Your task to perform on an android device: What's the weather going to be this weekend? Image 0: 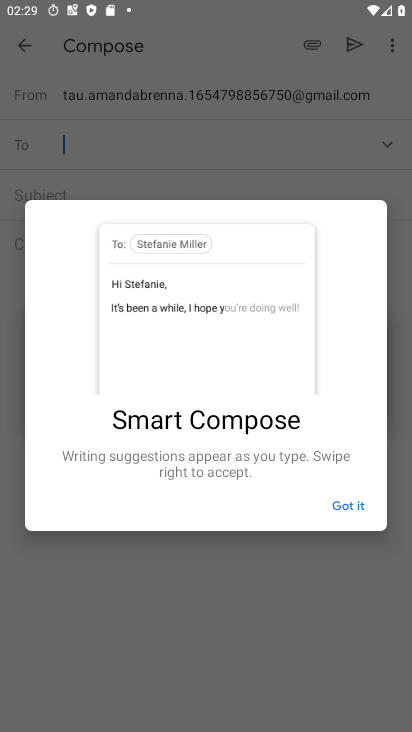
Step 0: press home button
Your task to perform on an android device: What's the weather going to be this weekend? Image 1: 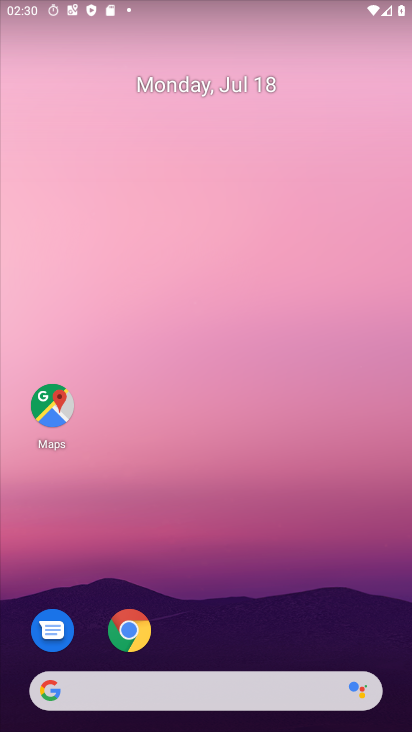
Step 1: click (258, 693)
Your task to perform on an android device: What's the weather going to be this weekend? Image 2: 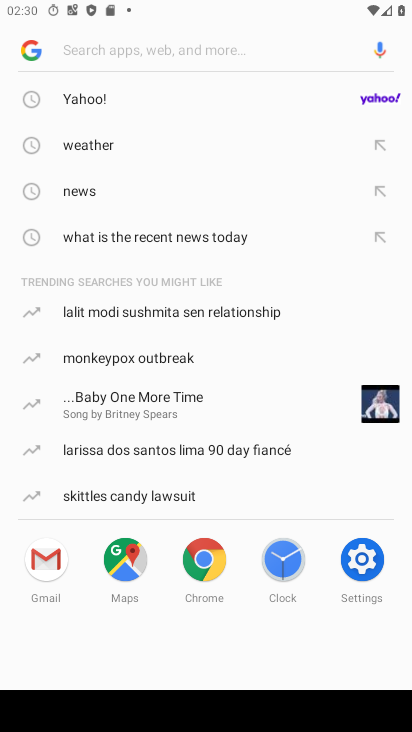
Step 2: click (105, 150)
Your task to perform on an android device: What's the weather going to be this weekend? Image 3: 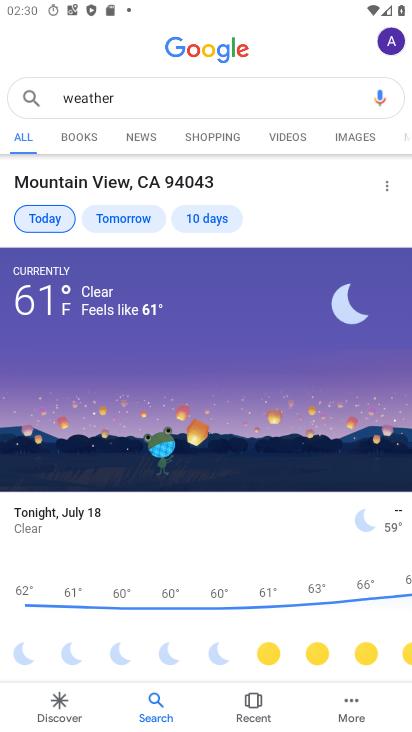
Step 3: click (175, 211)
Your task to perform on an android device: What's the weather going to be this weekend? Image 4: 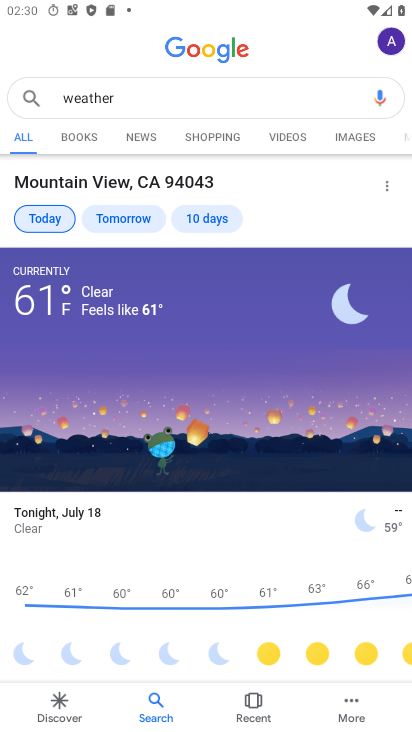
Step 4: click (198, 230)
Your task to perform on an android device: What's the weather going to be this weekend? Image 5: 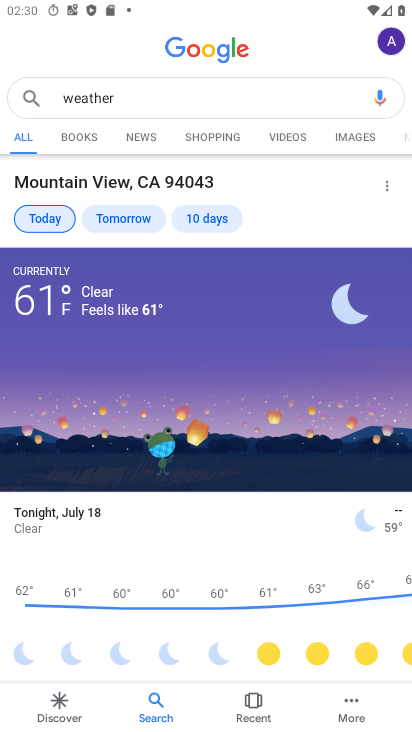
Step 5: click (198, 230)
Your task to perform on an android device: What's the weather going to be this weekend? Image 6: 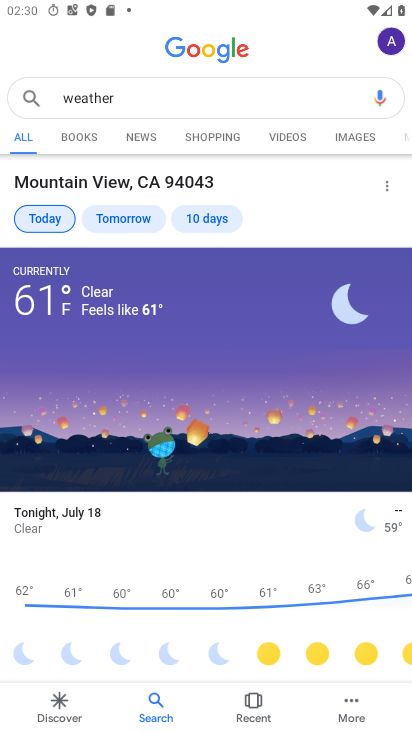
Step 6: click (204, 216)
Your task to perform on an android device: What's the weather going to be this weekend? Image 7: 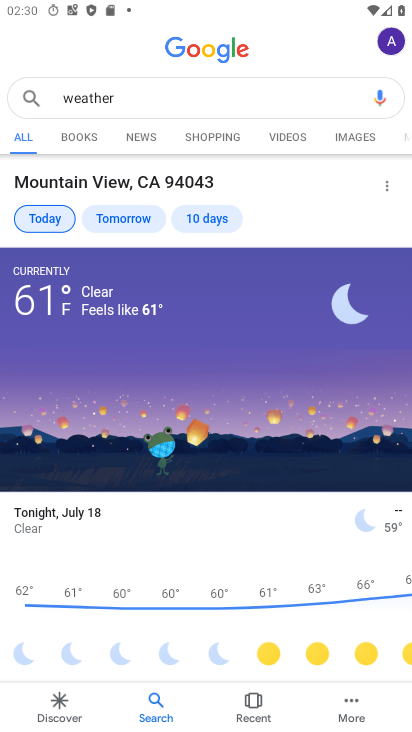
Step 7: click (204, 231)
Your task to perform on an android device: What's the weather going to be this weekend? Image 8: 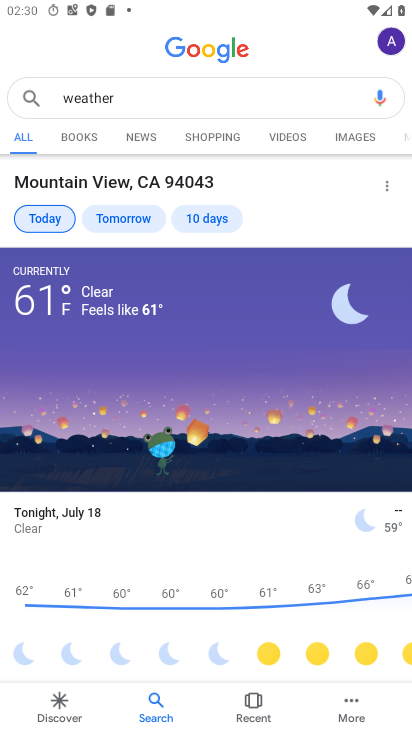
Step 8: click (204, 231)
Your task to perform on an android device: What's the weather going to be this weekend? Image 9: 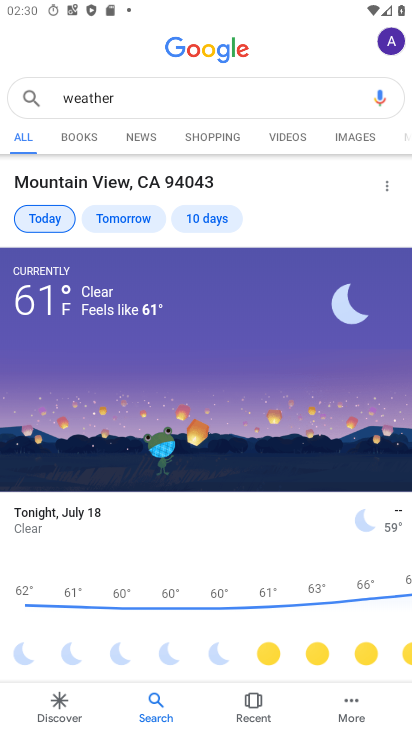
Step 9: click (204, 231)
Your task to perform on an android device: What's the weather going to be this weekend? Image 10: 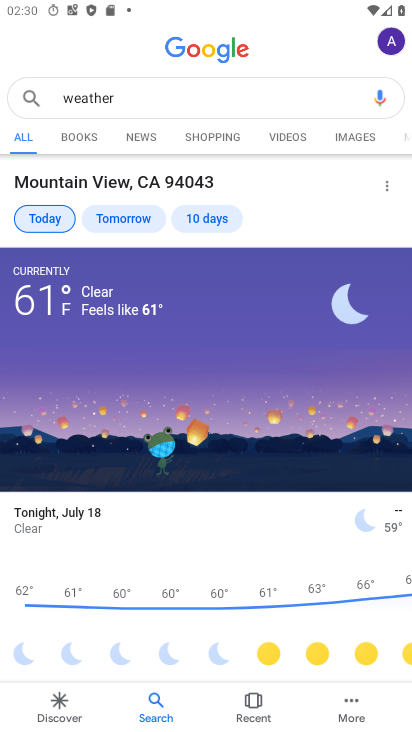
Step 10: click (204, 231)
Your task to perform on an android device: What's the weather going to be this weekend? Image 11: 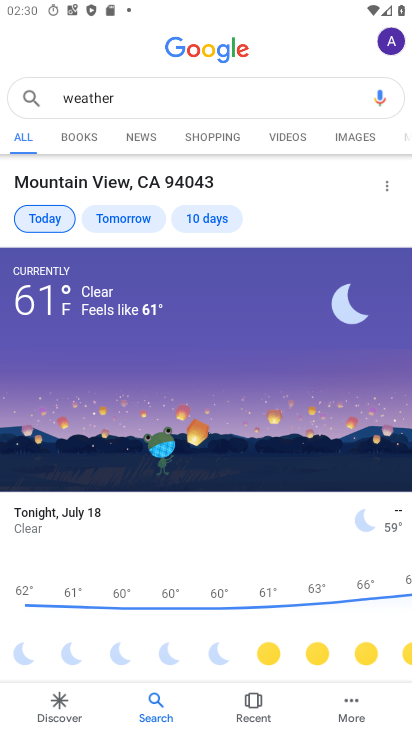
Step 11: click (204, 231)
Your task to perform on an android device: What's the weather going to be this weekend? Image 12: 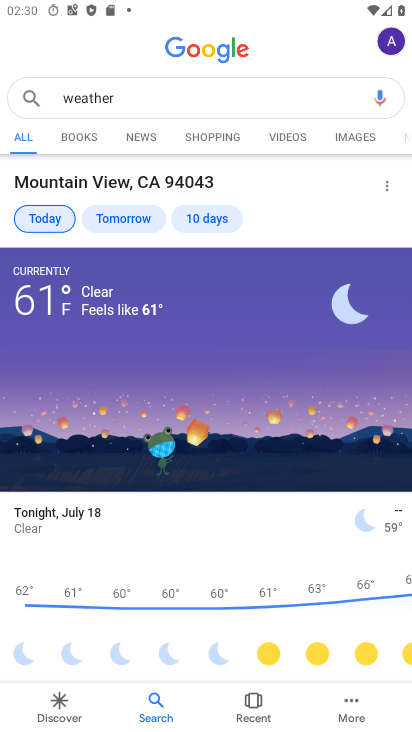
Step 12: click (204, 231)
Your task to perform on an android device: What's the weather going to be this weekend? Image 13: 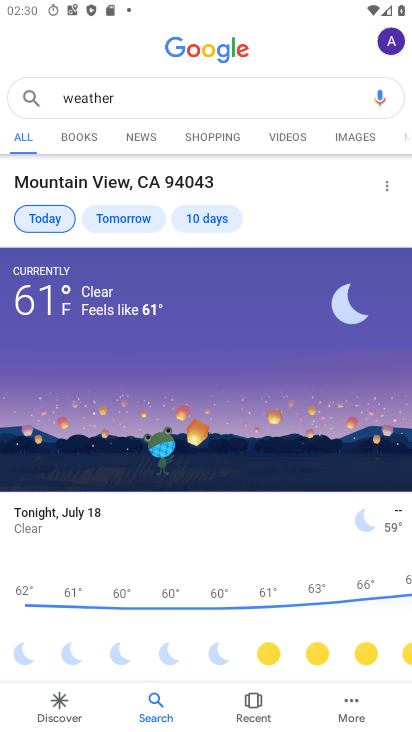
Step 13: click (204, 231)
Your task to perform on an android device: What's the weather going to be this weekend? Image 14: 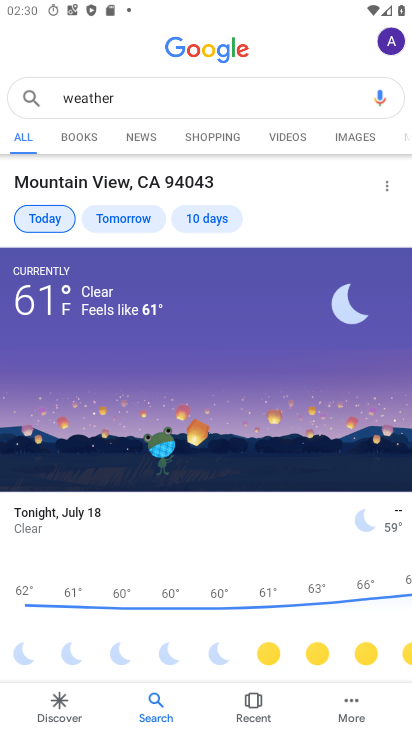
Step 14: click (204, 231)
Your task to perform on an android device: What's the weather going to be this weekend? Image 15: 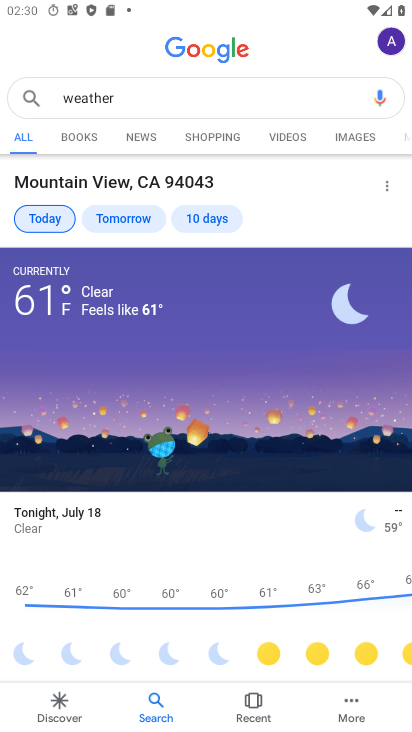
Step 15: click (193, 225)
Your task to perform on an android device: What's the weather going to be this weekend? Image 16: 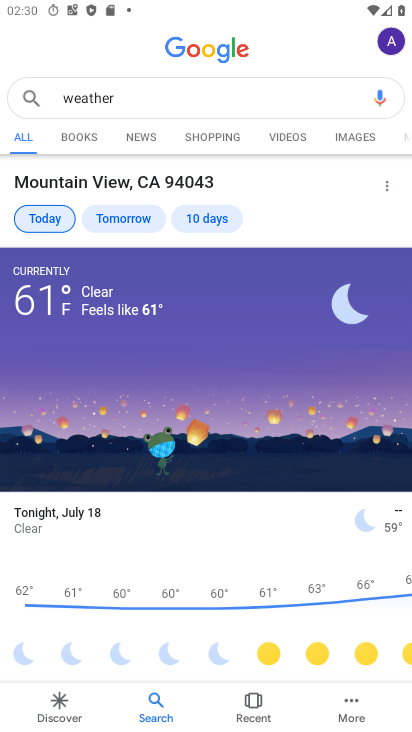
Step 16: click (193, 225)
Your task to perform on an android device: What's the weather going to be this weekend? Image 17: 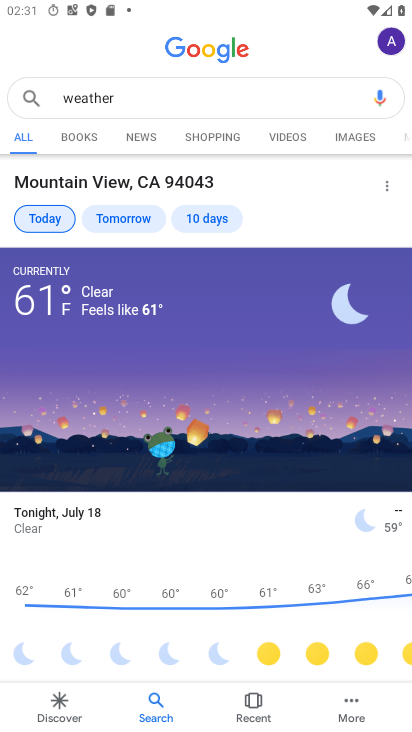
Step 17: click (193, 225)
Your task to perform on an android device: What's the weather going to be this weekend? Image 18: 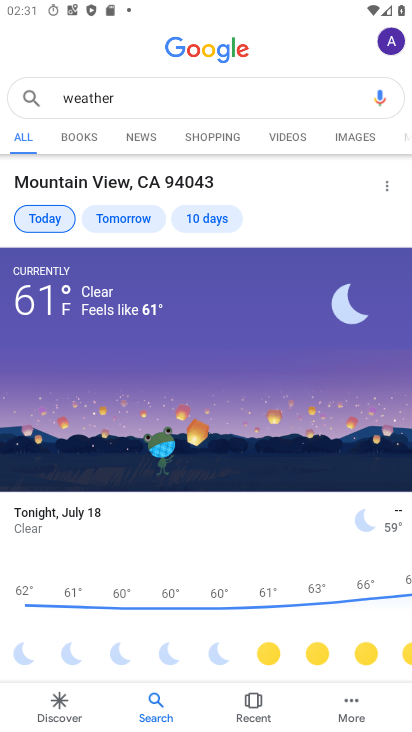
Step 18: click (193, 225)
Your task to perform on an android device: What's the weather going to be this weekend? Image 19: 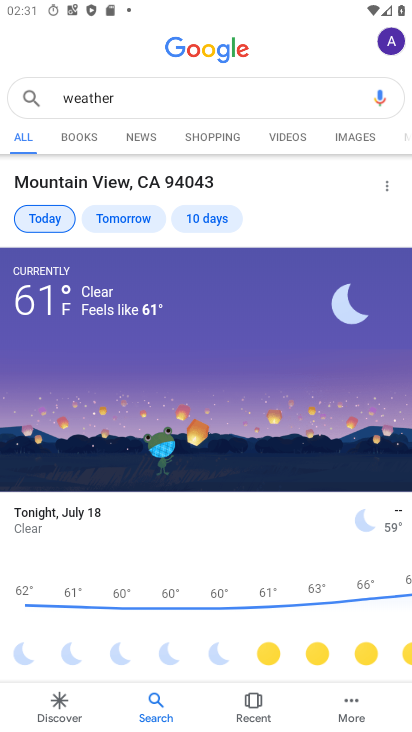
Step 19: click (193, 225)
Your task to perform on an android device: What's the weather going to be this weekend? Image 20: 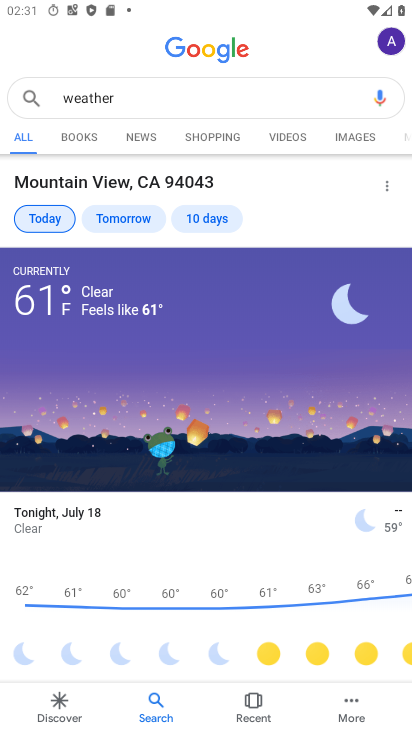
Step 20: click (193, 225)
Your task to perform on an android device: What's the weather going to be this weekend? Image 21: 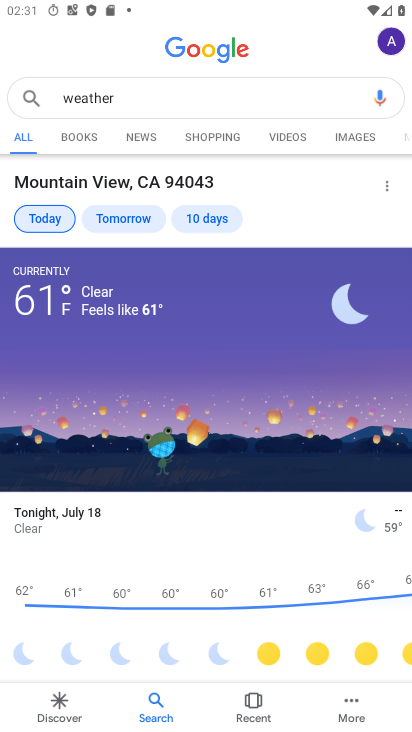
Step 21: click (193, 225)
Your task to perform on an android device: What's the weather going to be this weekend? Image 22: 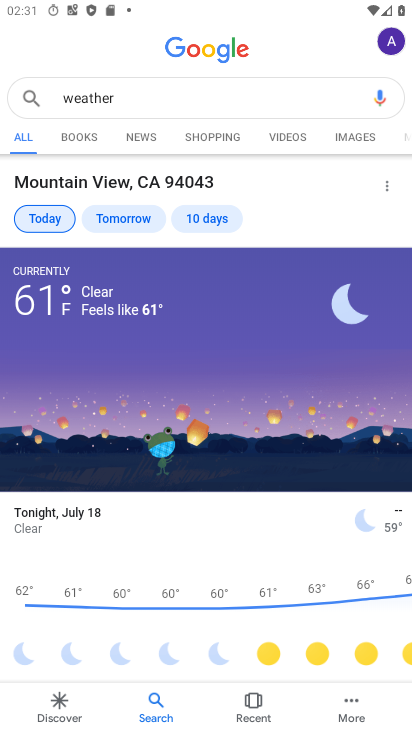
Step 22: click (193, 225)
Your task to perform on an android device: What's the weather going to be this weekend? Image 23: 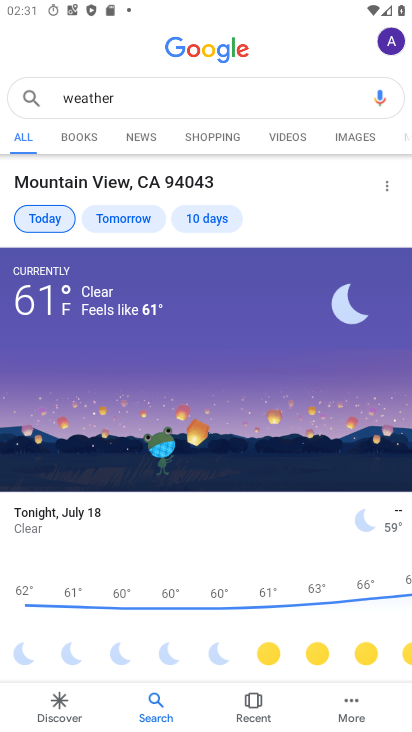
Step 23: click (193, 225)
Your task to perform on an android device: What's the weather going to be this weekend? Image 24: 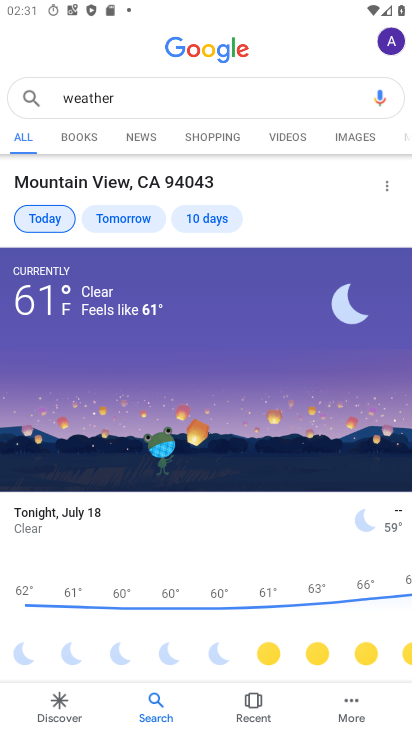
Step 24: click (193, 225)
Your task to perform on an android device: What's the weather going to be this weekend? Image 25: 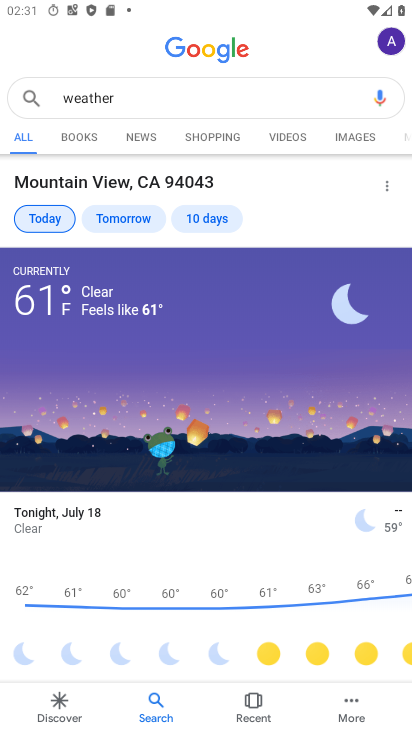
Step 25: click (193, 225)
Your task to perform on an android device: What's the weather going to be this weekend? Image 26: 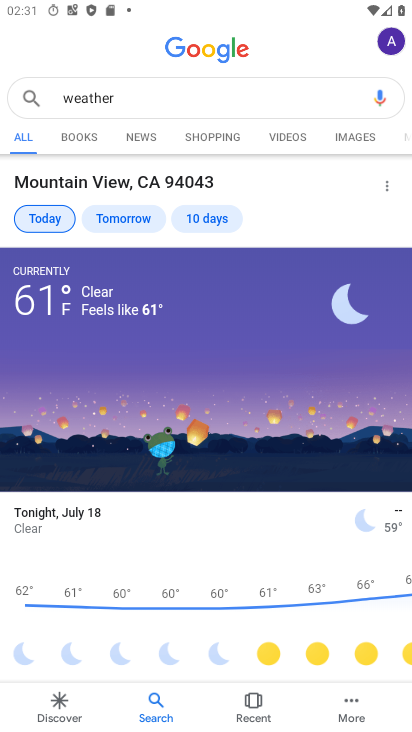
Step 26: click (193, 225)
Your task to perform on an android device: What's the weather going to be this weekend? Image 27: 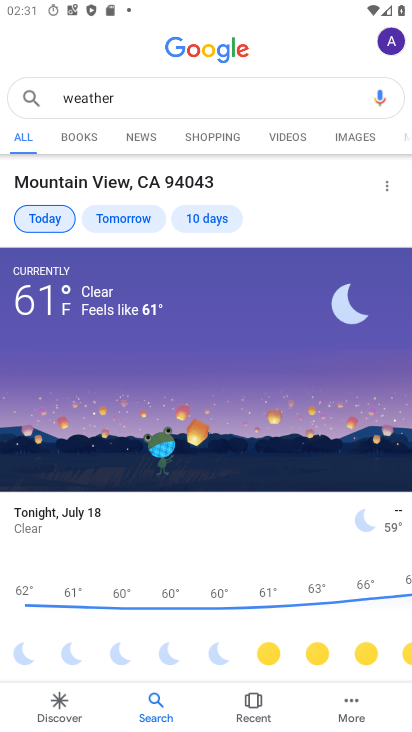
Step 27: click (193, 225)
Your task to perform on an android device: What's the weather going to be this weekend? Image 28: 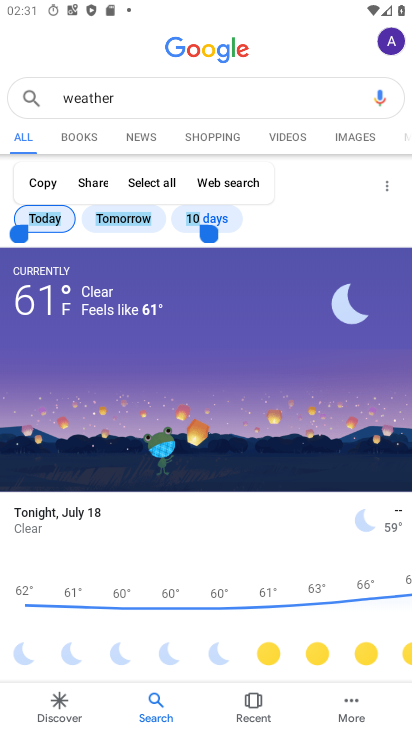
Step 28: click (193, 225)
Your task to perform on an android device: What's the weather going to be this weekend? Image 29: 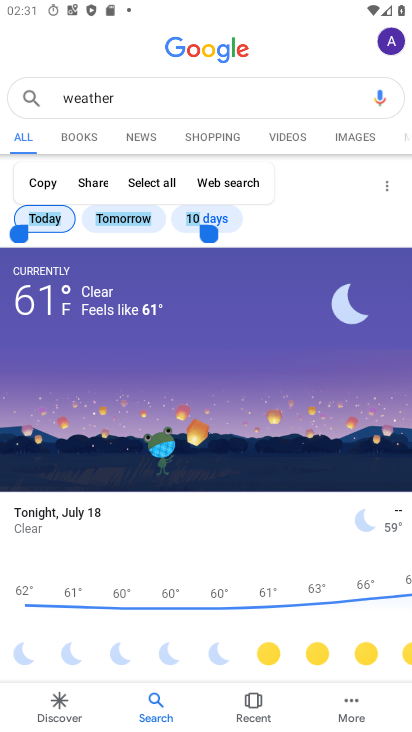
Step 29: click (225, 221)
Your task to perform on an android device: What's the weather going to be this weekend? Image 30: 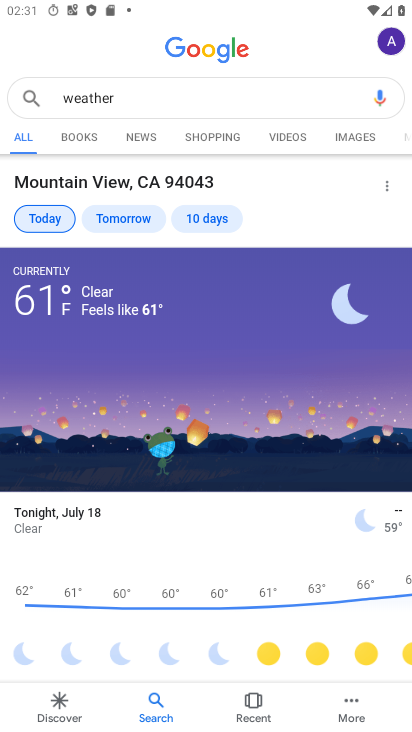
Step 30: click (225, 221)
Your task to perform on an android device: What's the weather going to be this weekend? Image 31: 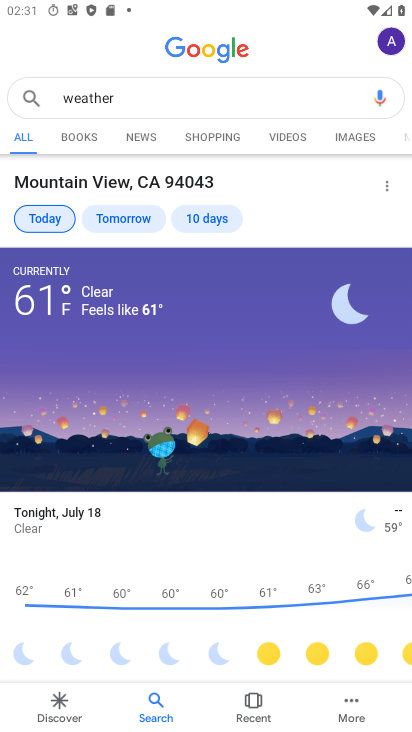
Step 31: click (225, 221)
Your task to perform on an android device: What's the weather going to be this weekend? Image 32: 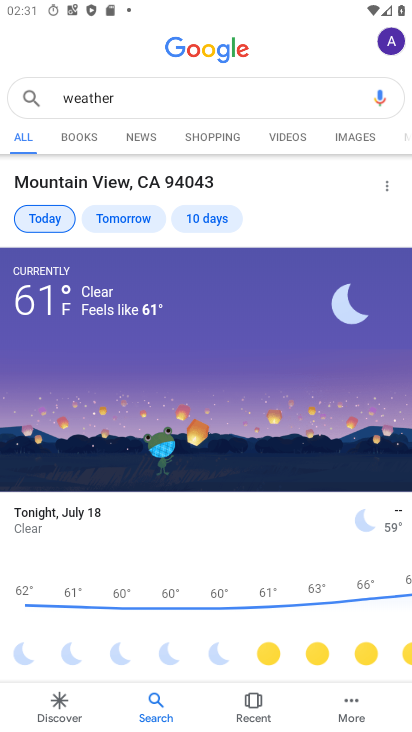
Step 32: task complete